Your task to perform on an android device: Show me popular videos on Youtube Image 0: 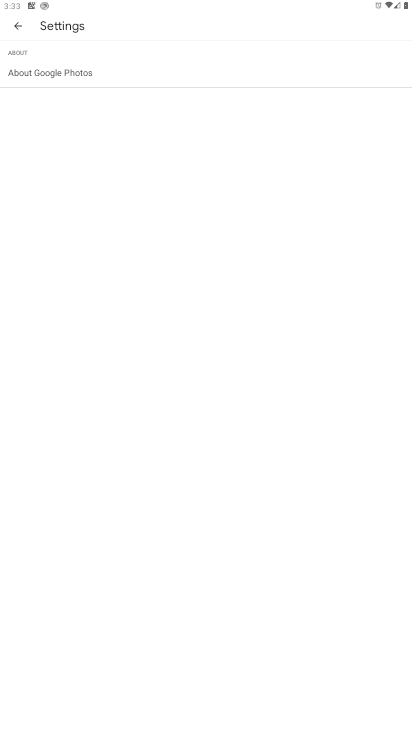
Step 0: press home button
Your task to perform on an android device: Show me popular videos on Youtube Image 1: 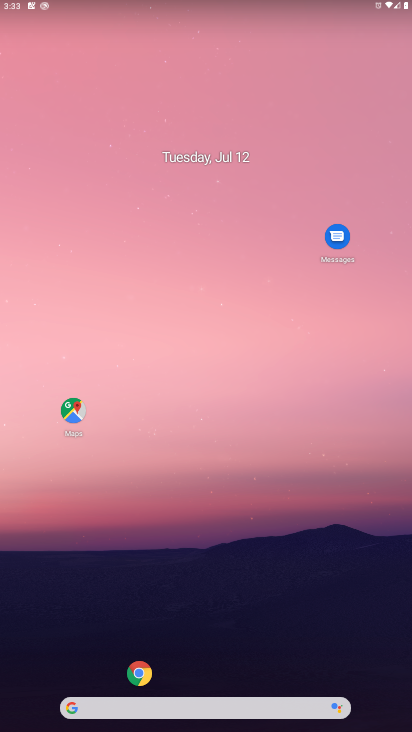
Step 1: drag from (88, 591) to (324, 0)
Your task to perform on an android device: Show me popular videos on Youtube Image 2: 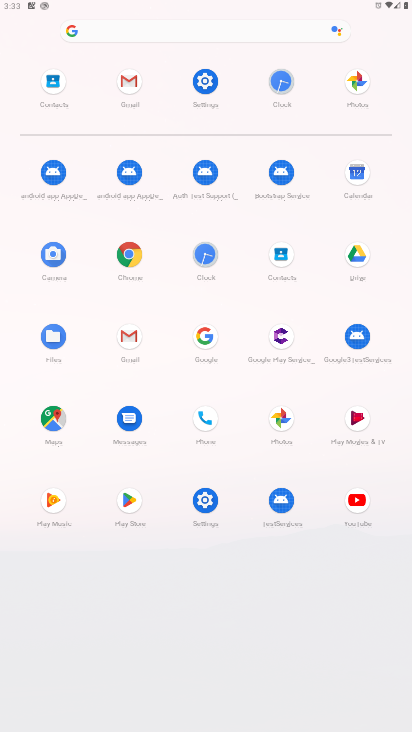
Step 2: click (359, 497)
Your task to perform on an android device: Show me popular videos on Youtube Image 3: 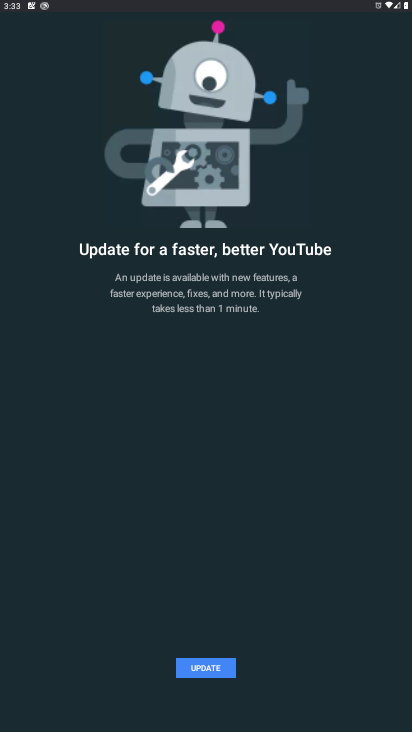
Step 3: click (214, 661)
Your task to perform on an android device: Show me popular videos on Youtube Image 4: 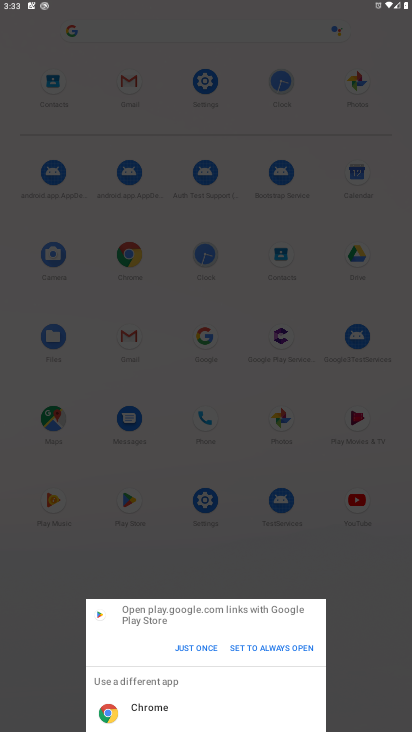
Step 4: click (190, 652)
Your task to perform on an android device: Show me popular videos on Youtube Image 5: 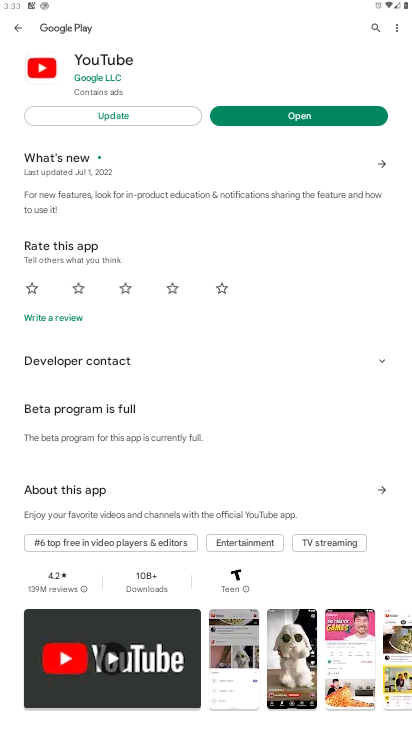
Step 5: click (320, 110)
Your task to perform on an android device: Show me popular videos on Youtube Image 6: 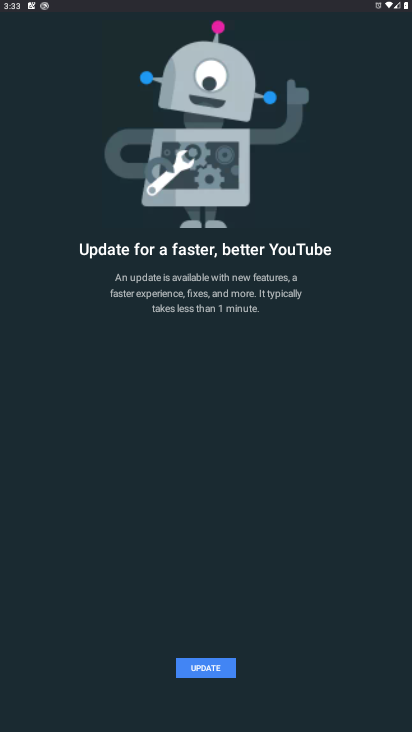
Step 6: task complete